Your task to perform on an android device: Go to display settings Image 0: 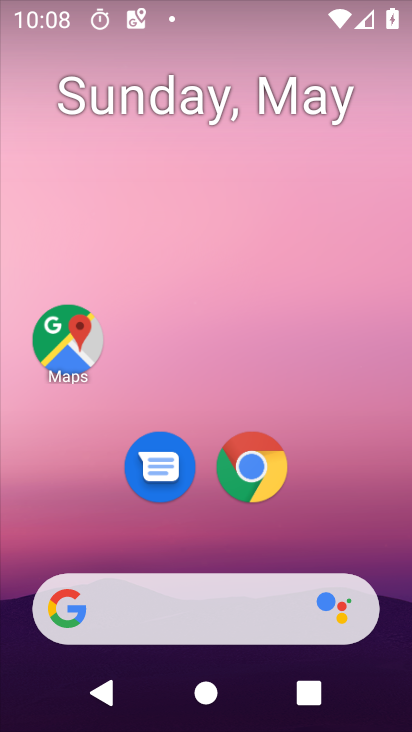
Step 0: drag from (199, 551) to (171, 268)
Your task to perform on an android device: Go to display settings Image 1: 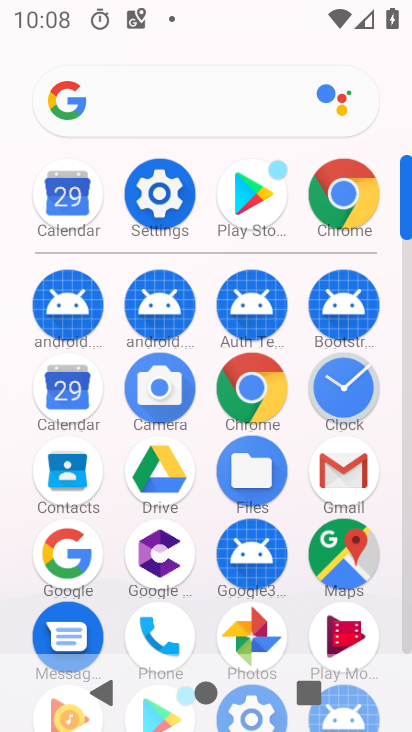
Step 1: click (155, 215)
Your task to perform on an android device: Go to display settings Image 2: 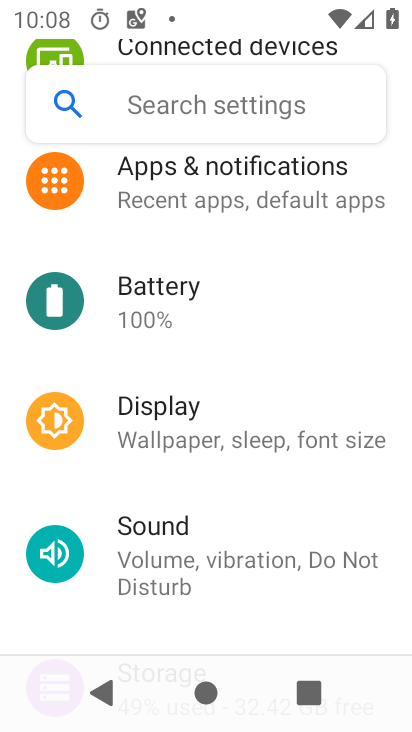
Step 2: drag from (268, 260) to (267, 539)
Your task to perform on an android device: Go to display settings Image 3: 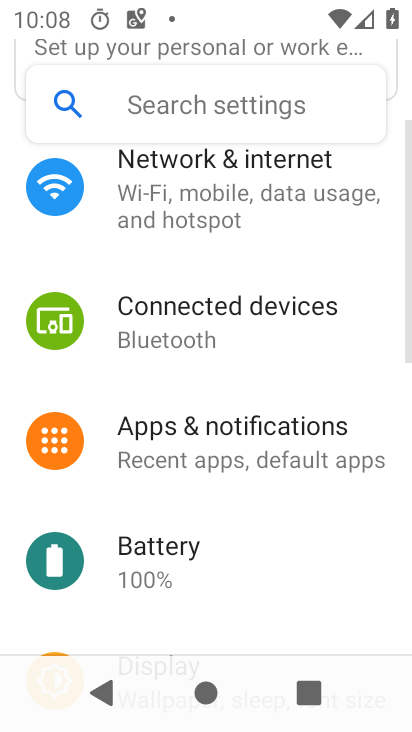
Step 3: drag from (272, 235) to (277, 464)
Your task to perform on an android device: Go to display settings Image 4: 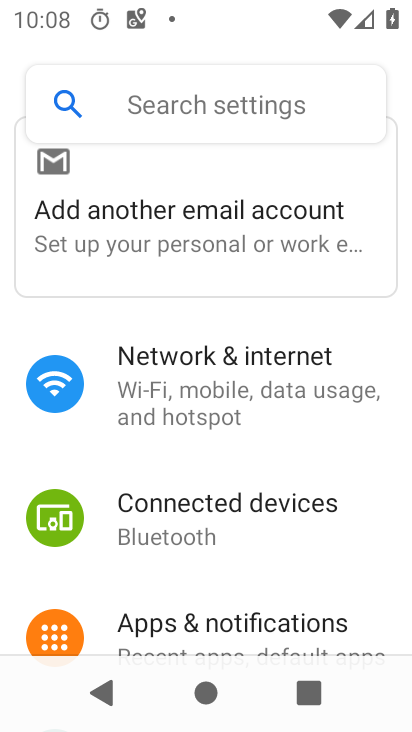
Step 4: drag from (262, 564) to (241, 240)
Your task to perform on an android device: Go to display settings Image 5: 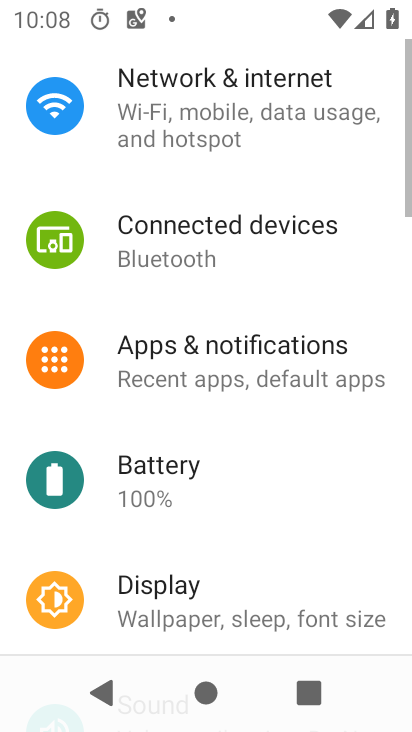
Step 5: drag from (205, 573) to (223, 249)
Your task to perform on an android device: Go to display settings Image 6: 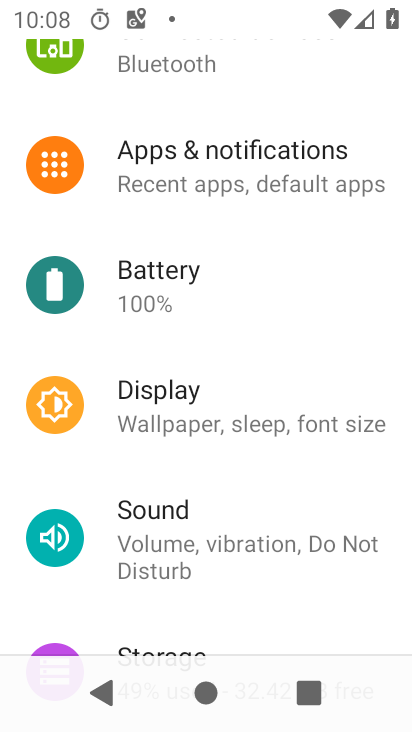
Step 6: click (200, 426)
Your task to perform on an android device: Go to display settings Image 7: 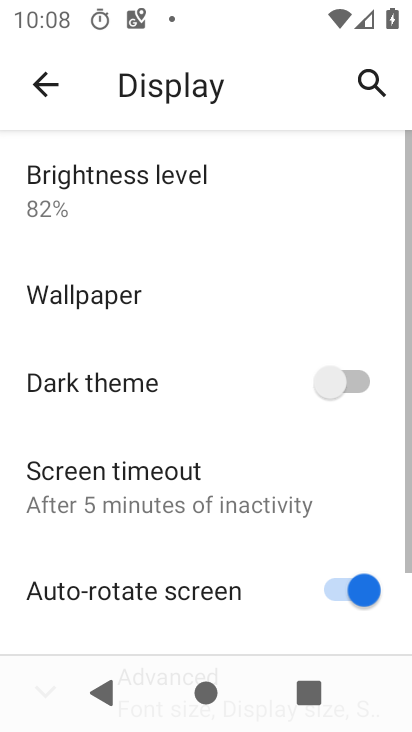
Step 7: task complete